Your task to perform on an android device: Check the weather Image 0: 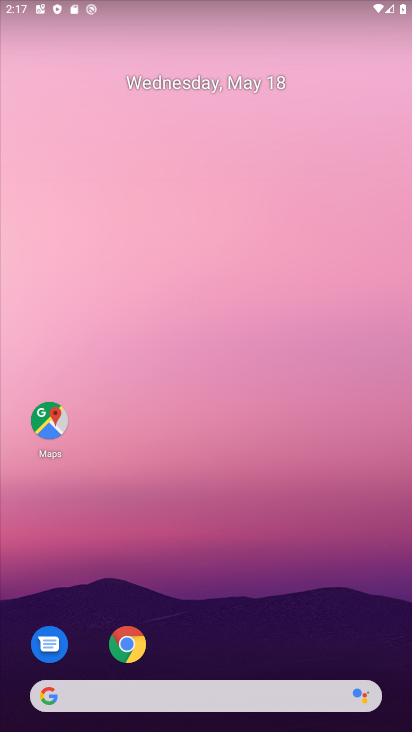
Step 0: click (248, 701)
Your task to perform on an android device: Check the weather Image 1: 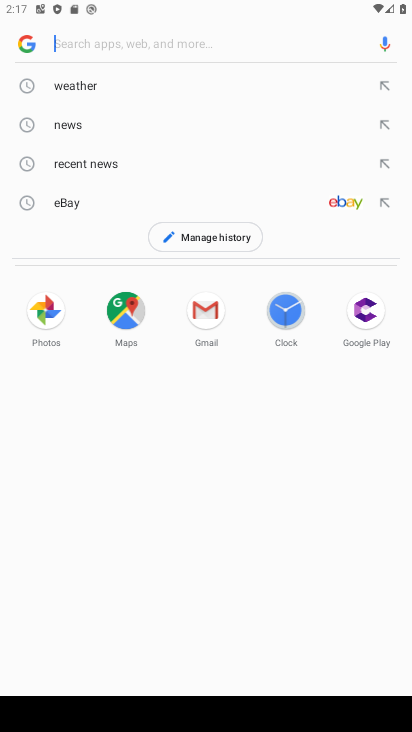
Step 1: click (128, 82)
Your task to perform on an android device: Check the weather Image 2: 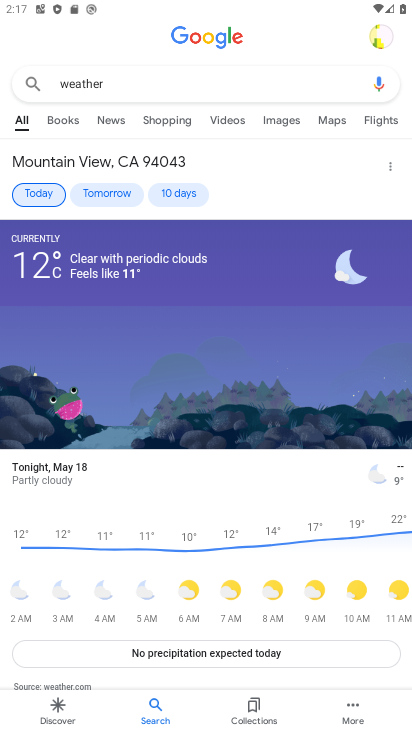
Step 2: task complete